Your task to perform on an android device: View the shopping cart on ebay.com. Image 0: 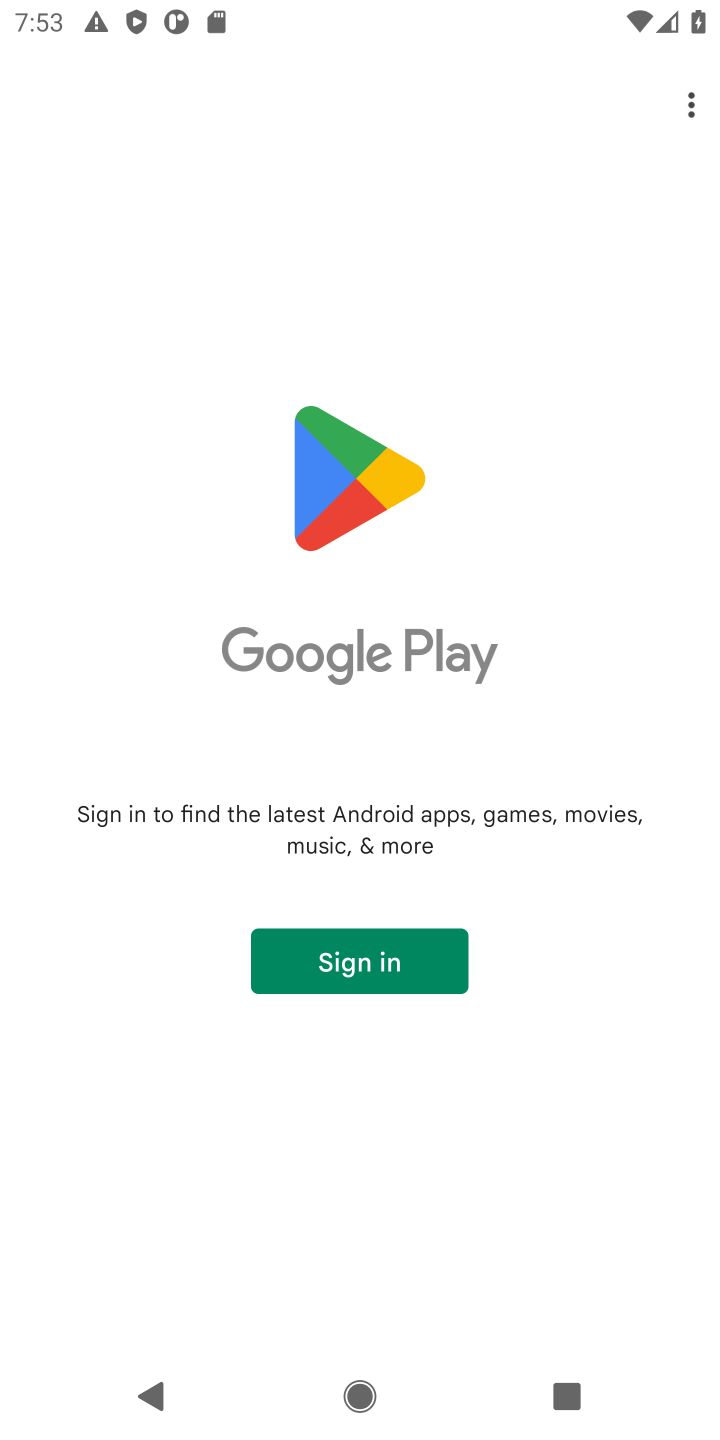
Step 0: press home button
Your task to perform on an android device: View the shopping cart on ebay.com. Image 1: 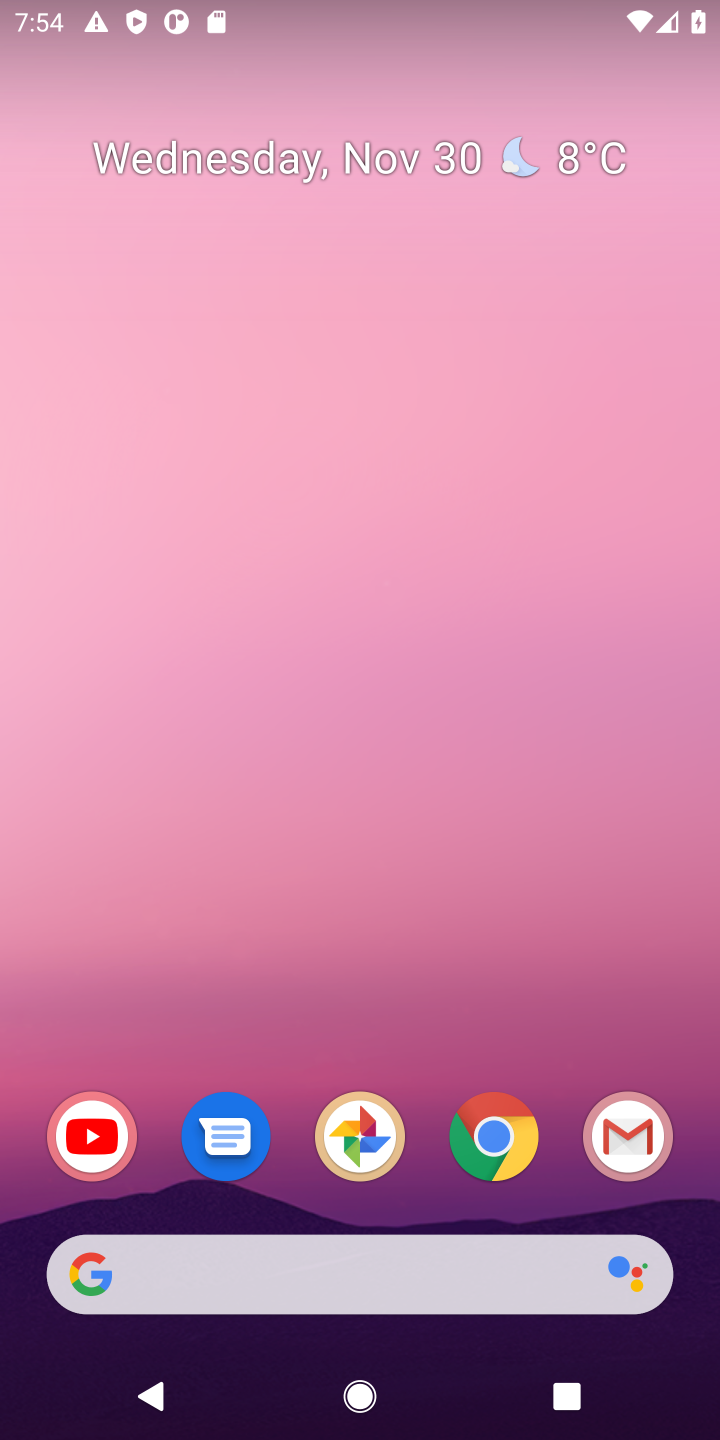
Step 1: click (502, 1126)
Your task to perform on an android device: View the shopping cart on ebay.com. Image 2: 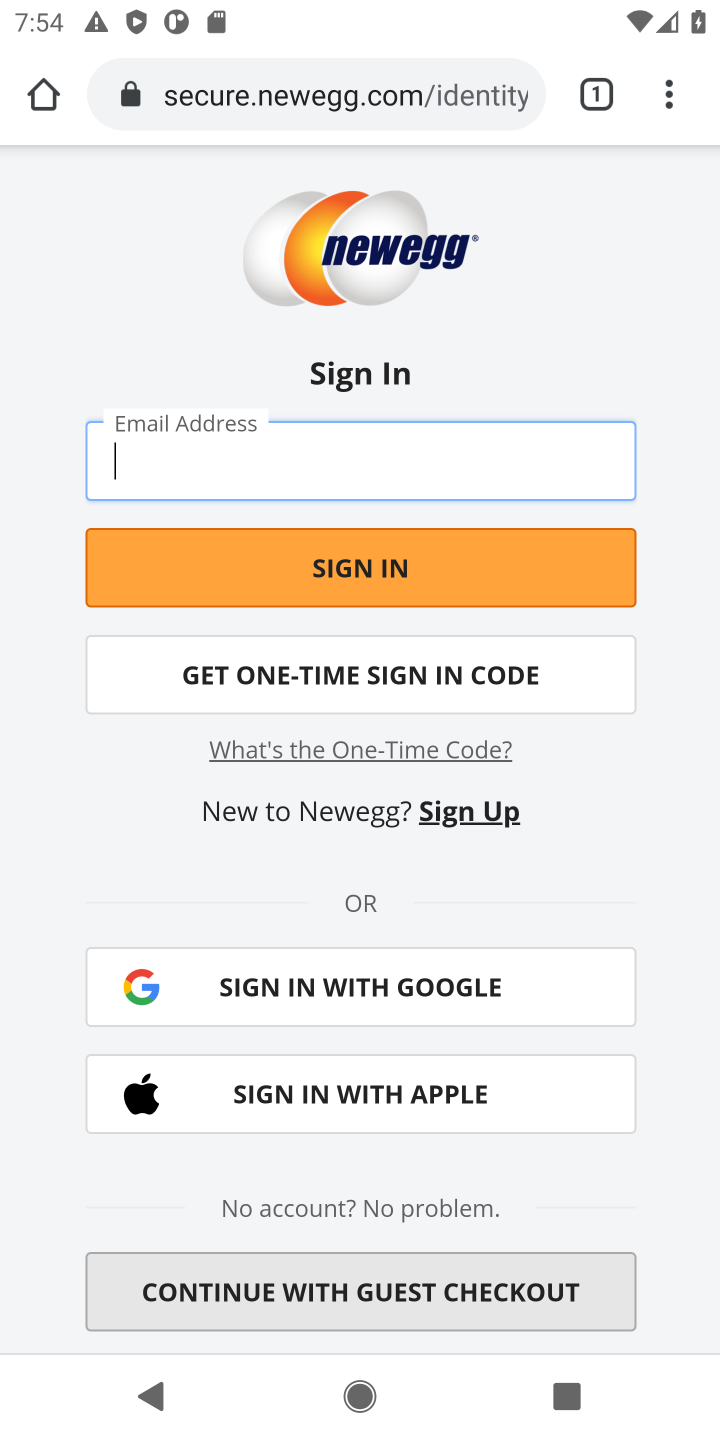
Step 2: click (330, 101)
Your task to perform on an android device: View the shopping cart on ebay.com. Image 3: 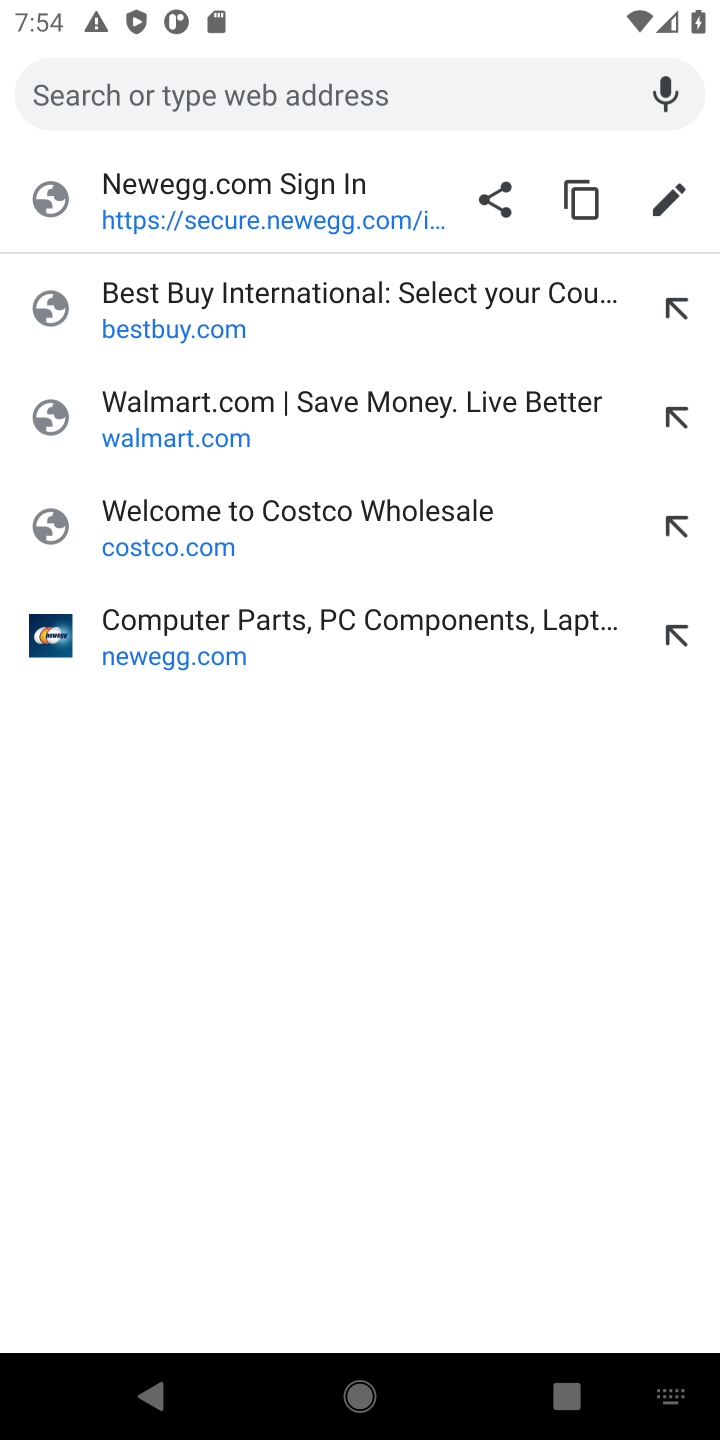
Step 3: type "ebay.com"
Your task to perform on an android device: View the shopping cart on ebay.com. Image 4: 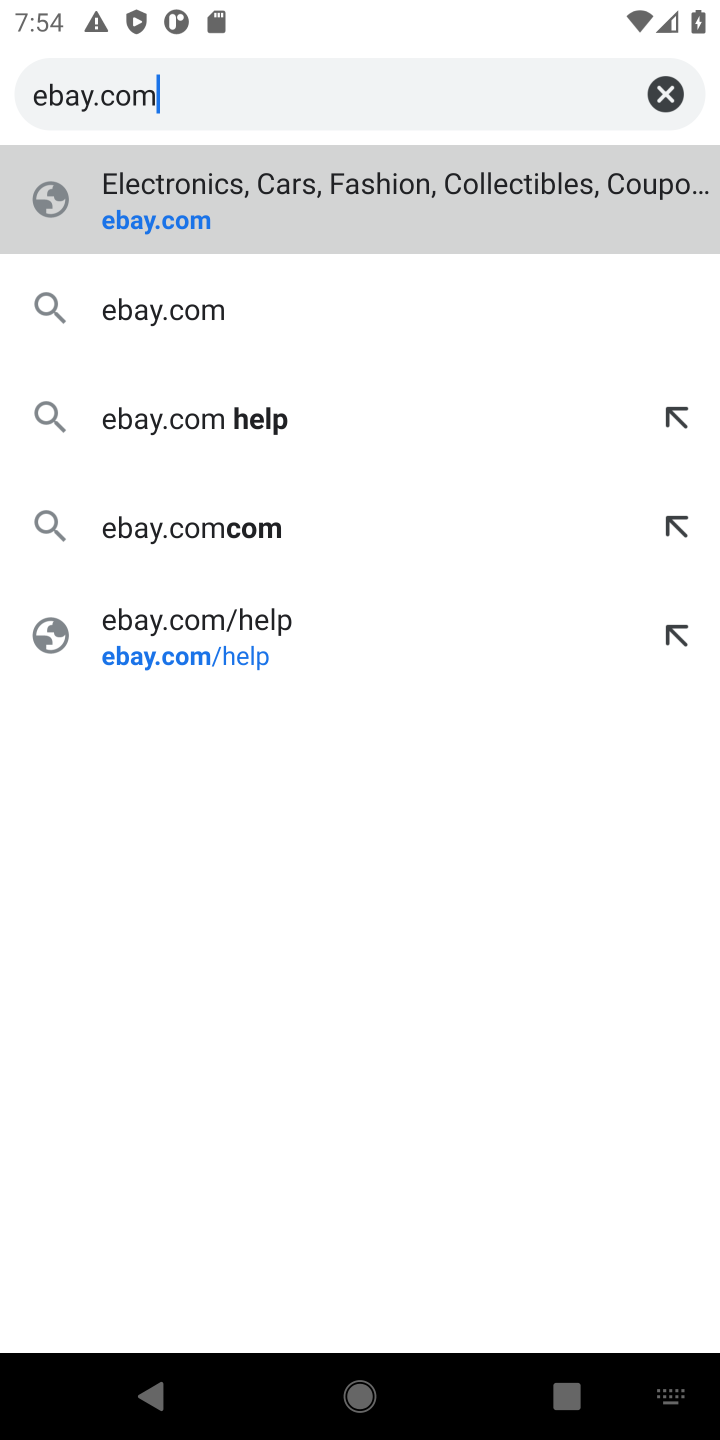
Step 4: click (166, 217)
Your task to perform on an android device: View the shopping cart on ebay.com. Image 5: 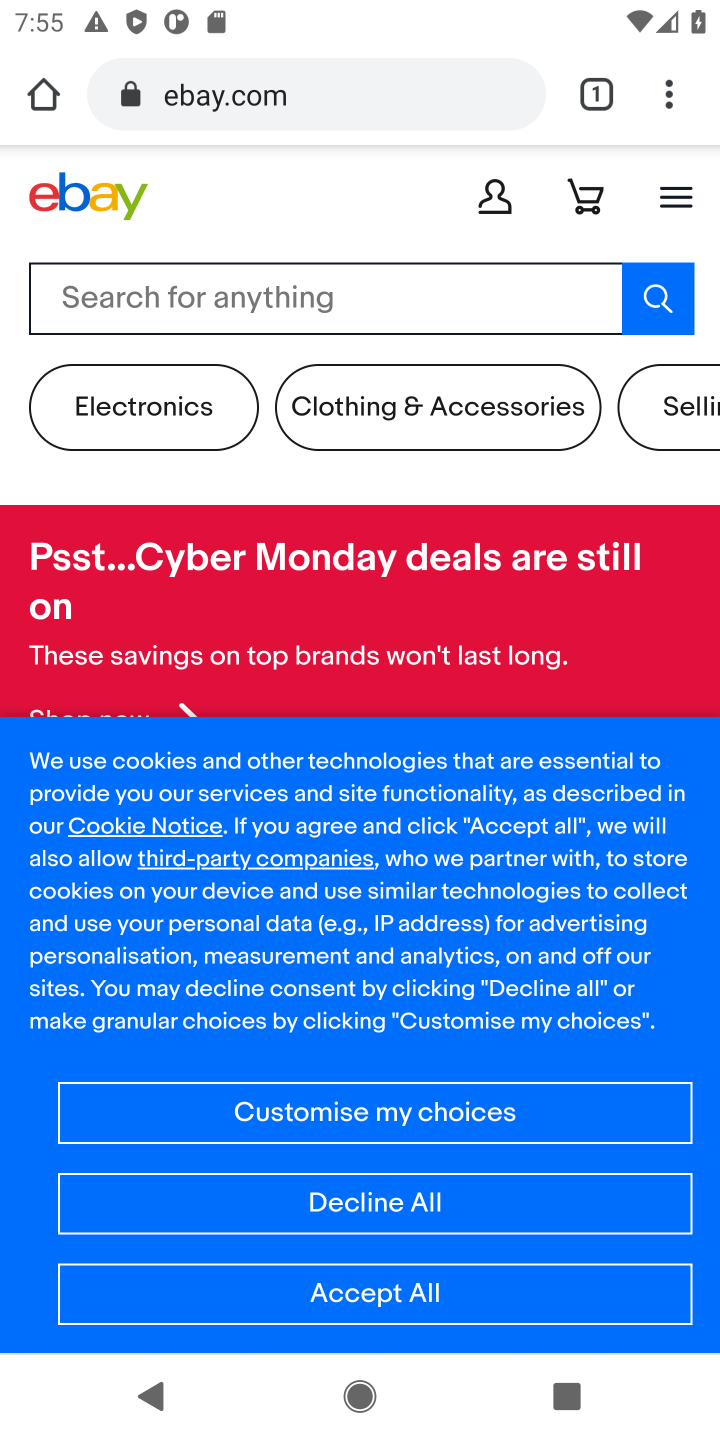
Step 5: click (581, 198)
Your task to perform on an android device: View the shopping cart on ebay.com. Image 6: 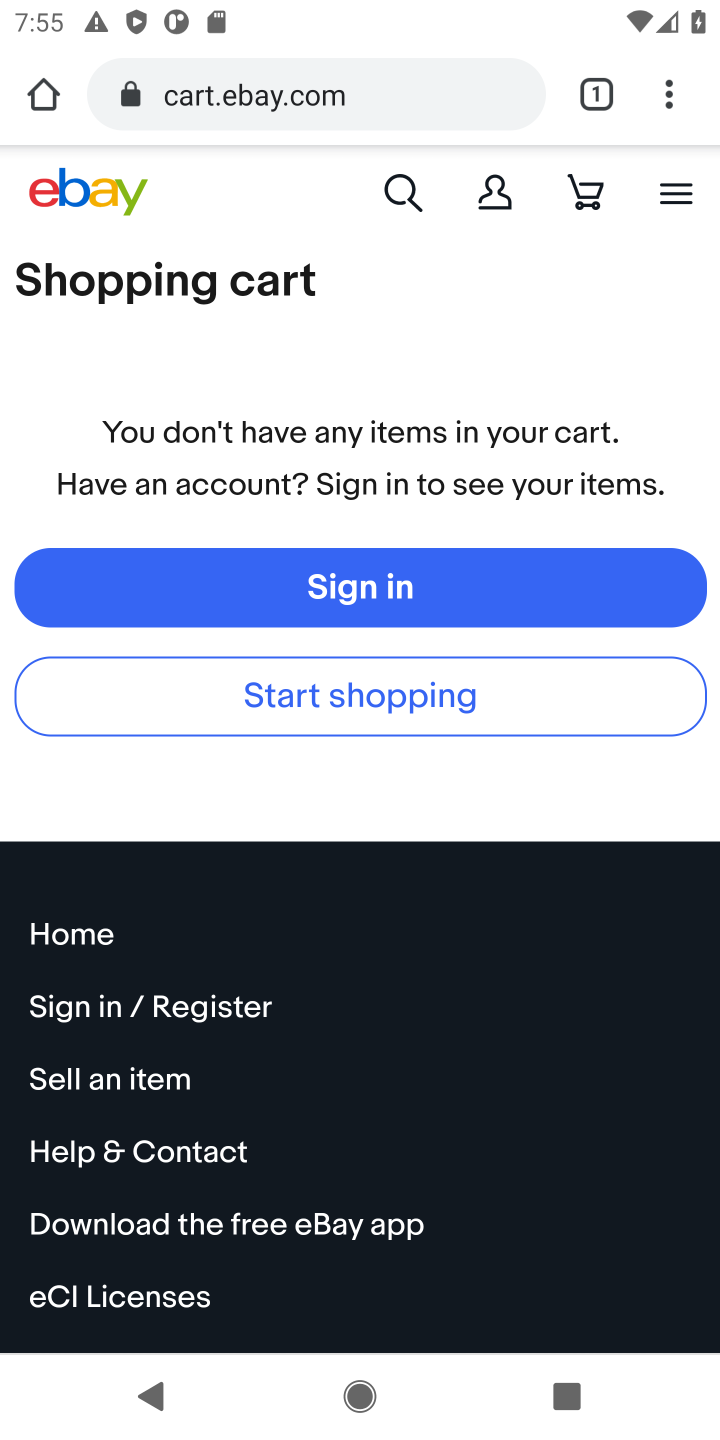
Step 6: task complete